Your task to perform on an android device: Open Wikipedia Image 0: 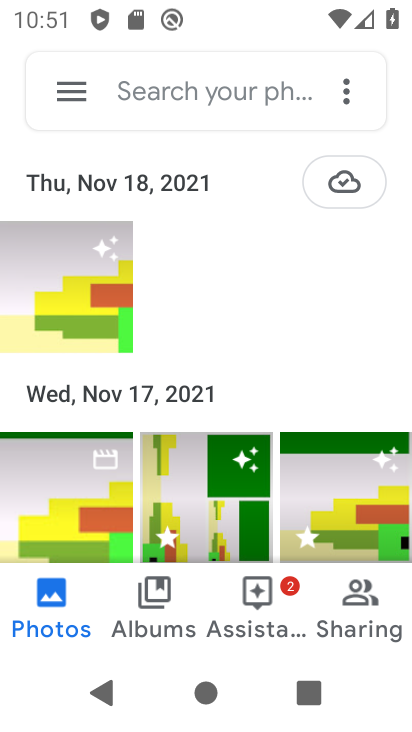
Step 0: press home button
Your task to perform on an android device: Open Wikipedia Image 1: 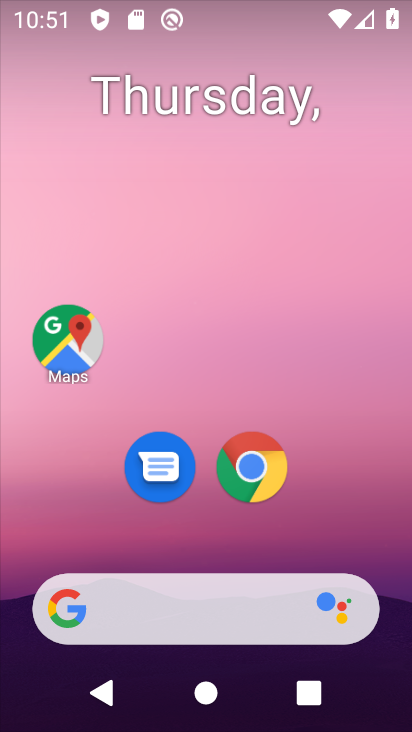
Step 1: click (250, 474)
Your task to perform on an android device: Open Wikipedia Image 2: 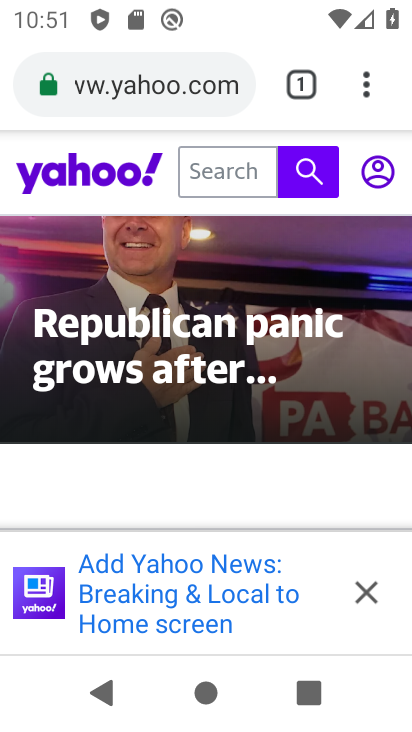
Step 2: click (118, 93)
Your task to perform on an android device: Open Wikipedia Image 3: 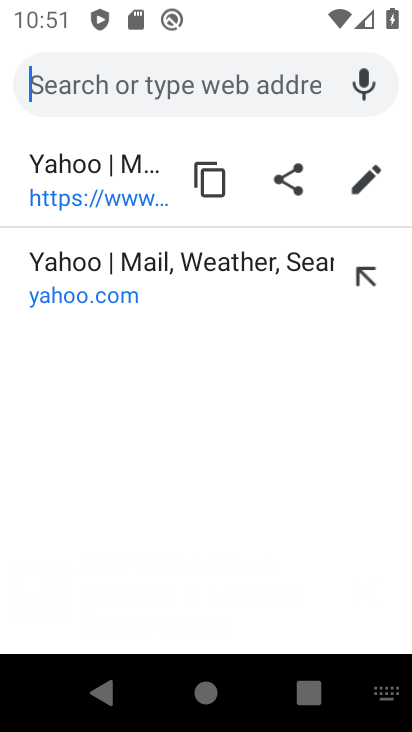
Step 3: type "wikipedia"
Your task to perform on an android device: Open Wikipedia Image 4: 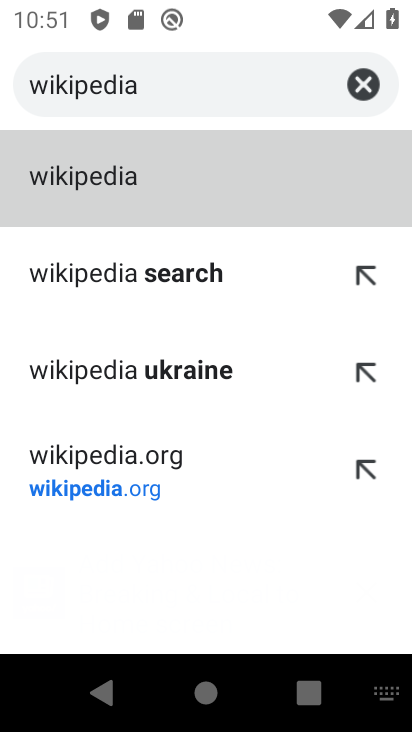
Step 4: click (81, 461)
Your task to perform on an android device: Open Wikipedia Image 5: 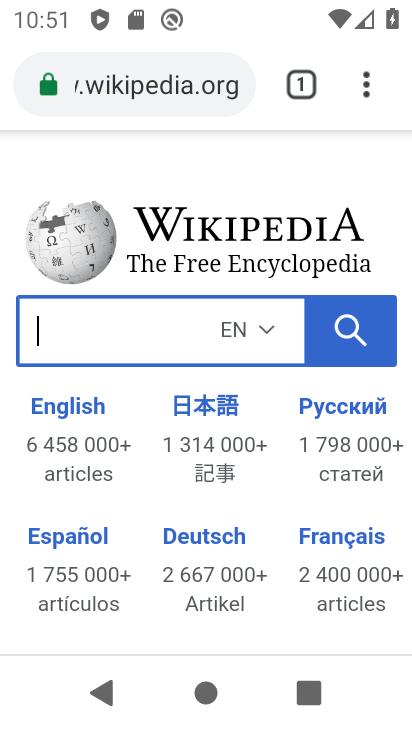
Step 5: task complete